Your task to perform on an android device: turn on data saver in the chrome app Image 0: 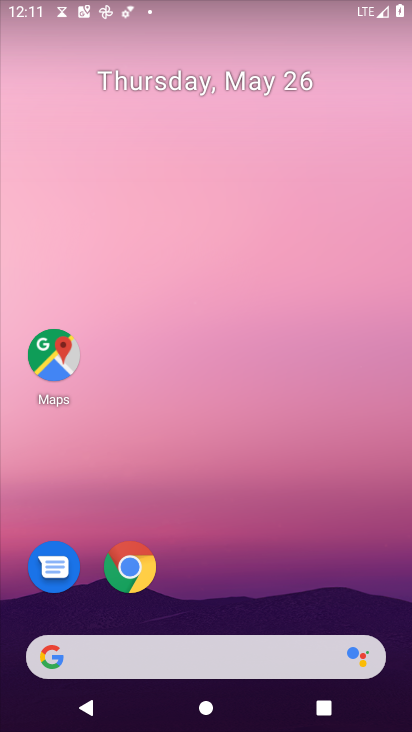
Step 0: click (128, 573)
Your task to perform on an android device: turn on data saver in the chrome app Image 1: 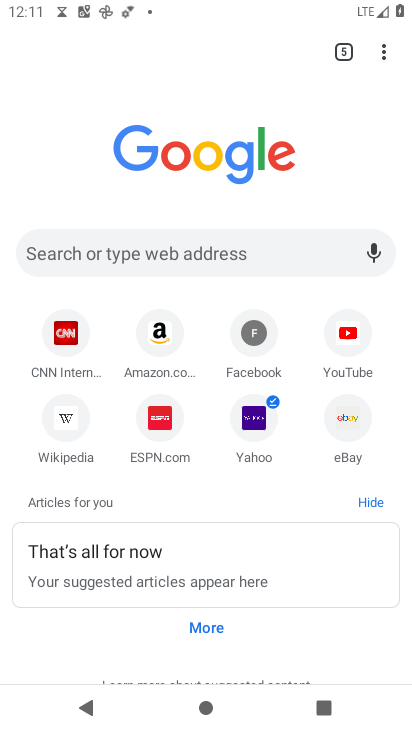
Step 1: click (387, 61)
Your task to perform on an android device: turn on data saver in the chrome app Image 2: 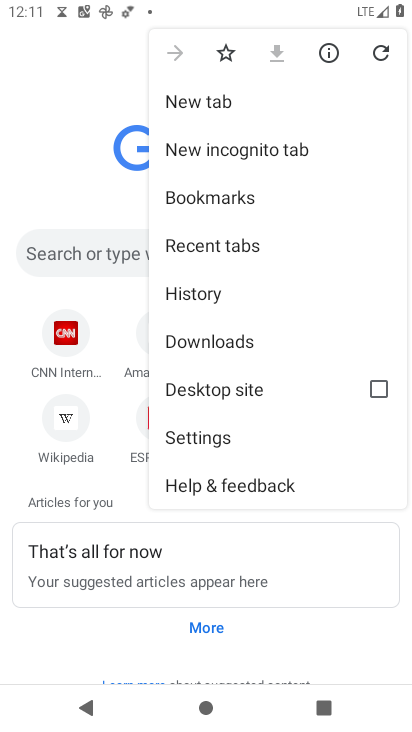
Step 2: drag from (275, 453) to (264, 121)
Your task to perform on an android device: turn on data saver in the chrome app Image 3: 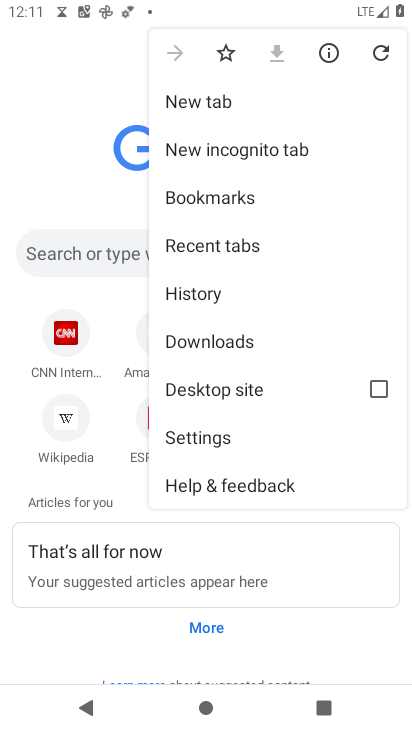
Step 3: click (189, 419)
Your task to perform on an android device: turn on data saver in the chrome app Image 4: 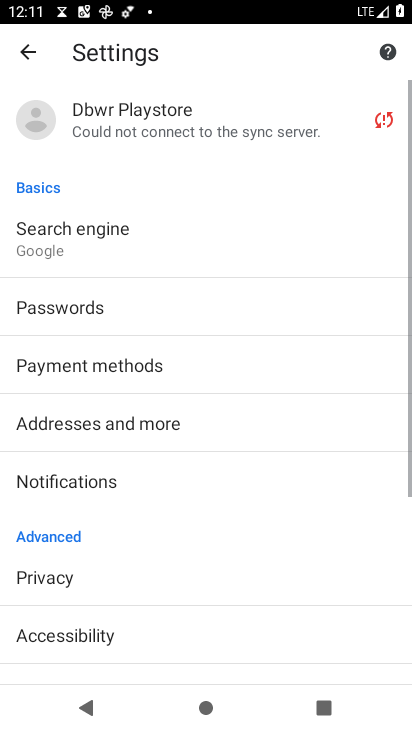
Step 4: drag from (162, 493) to (161, 179)
Your task to perform on an android device: turn on data saver in the chrome app Image 5: 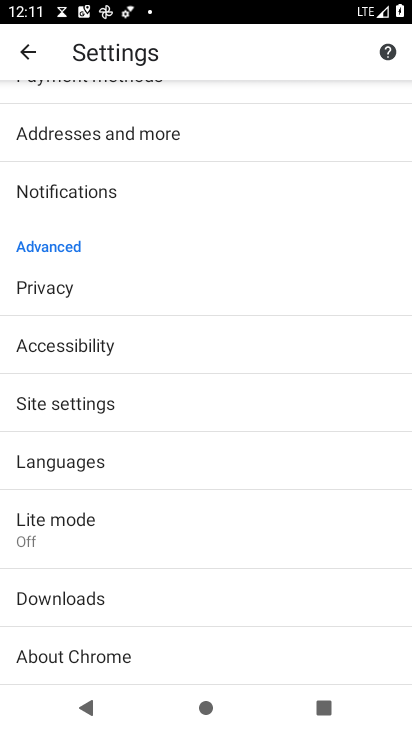
Step 5: click (77, 289)
Your task to perform on an android device: turn on data saver in the chrome app Image 6: 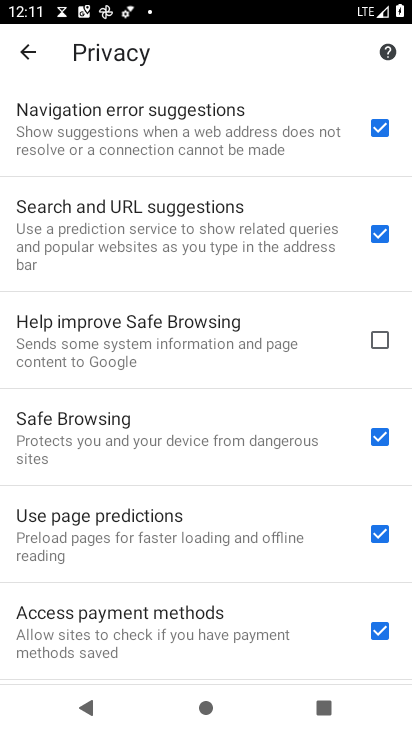
Step 6: drag from (156, 546) to (152, 320)
Your task to perform on an android device: turn on data saver in the chrome app Image 7: 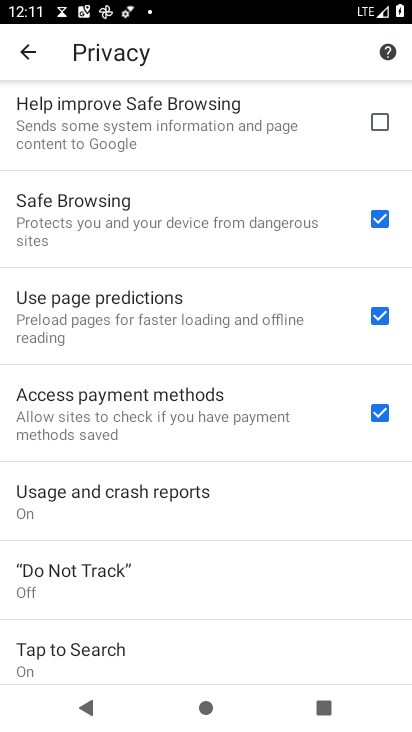
Step 7: drag from (170, 595) to (168, 445)
Your task to perform on an android device: turn on data saver in the chrome app Image 8: 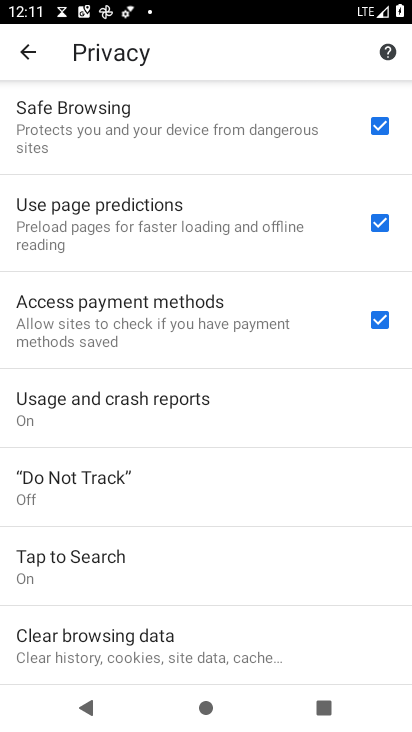
Step 8: press back button
Your task to perform on an android device: turn on data saver in the chrome app Image 9: 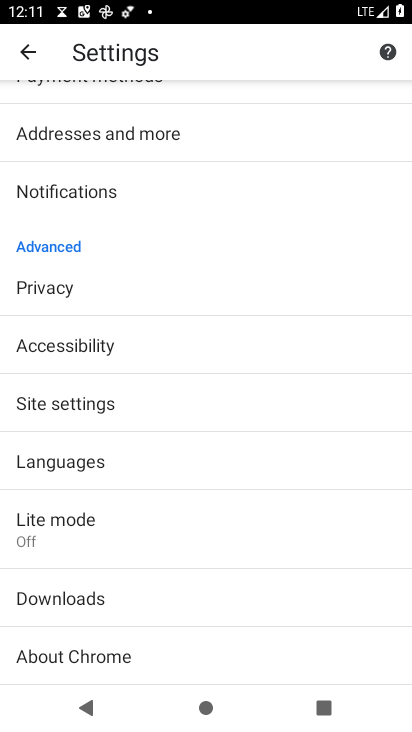
Step 9: click (111, 650)
Your task to perform on an android device: turn on data saver in the chrome app Image 10: 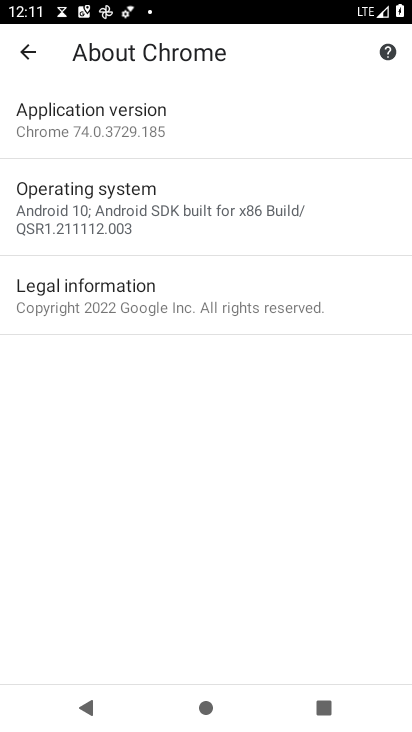
Step 10: press back button
Your task to perform on an android device: turn on data saver in the chrome app Image 11: 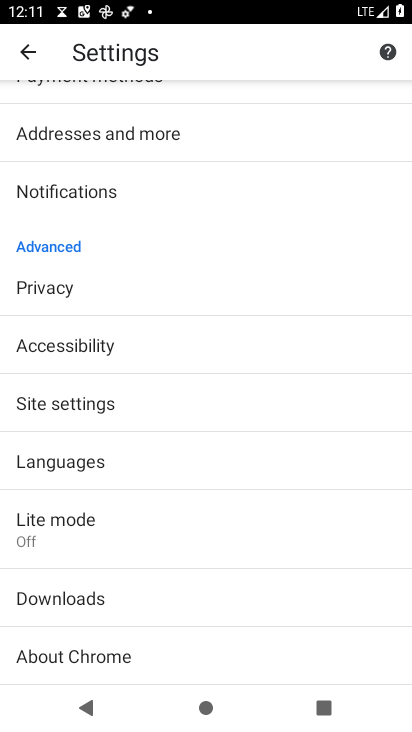
Step 11: click (135, 349)
Your task to perform on an android device: turn on data saver in the chrome app Image 12: 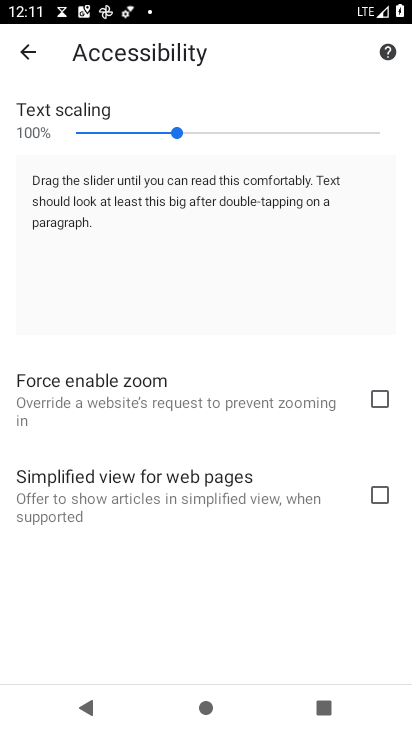
Step 12: task complete